Your task to perform on an android device: Go to notification settings Image 0: 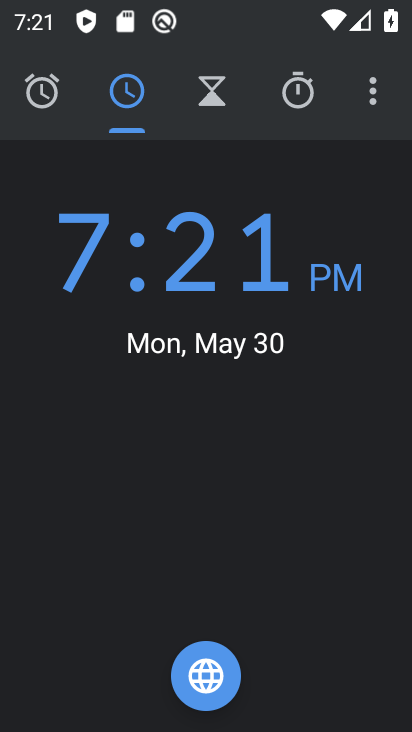
Step 0: press home button
Your task to perform on an android device: Go to notification settings Image 1: 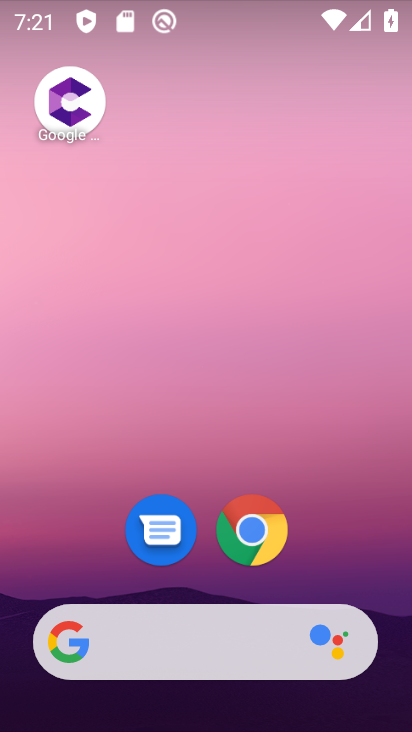
Step 1: drag from (4, 624) to (213, 131)
Your task to perform on an android device: Go to notification settings Image 2: 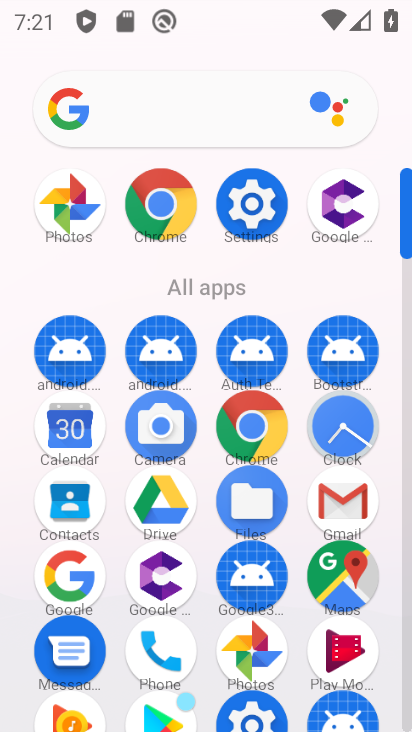
Step 2: click (264, 204)
Your task to perform on an android device: Go to notification settings Image 3: 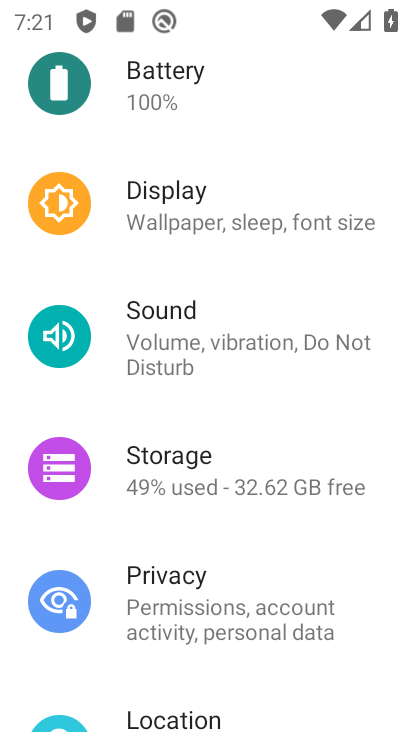
Step 3: drag from (146, 156) to (67, 627)
Your task to perform on an android device: Go to notification settings Image 4: 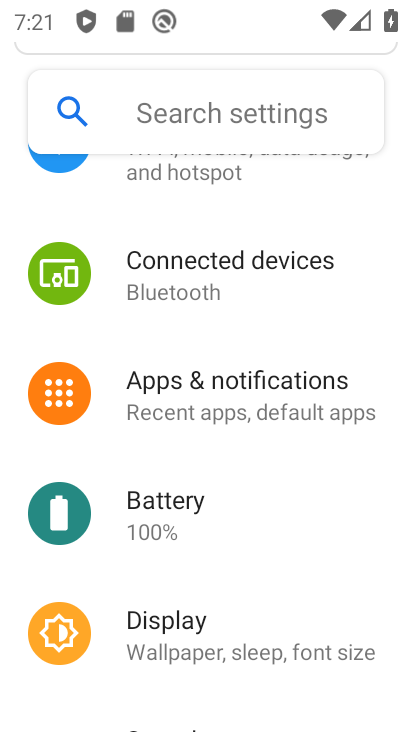
Step 4: click (151, 414)
Your task to perform on an android device: Go to notification settings Image 5: 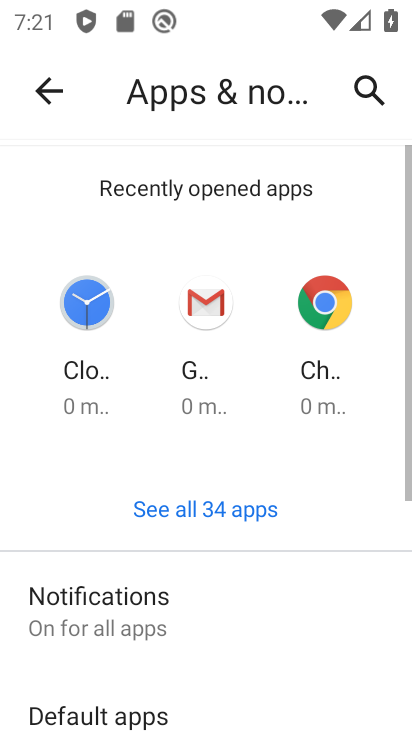
Step 5: click (97, 616)
Your task to perform on an android device: Go to notification settings Image 6: 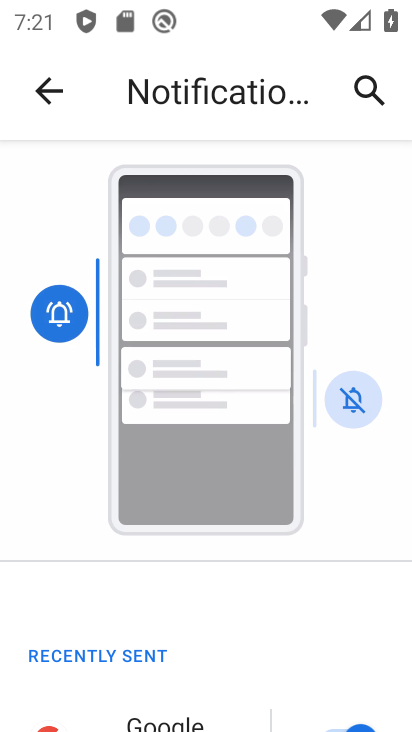
Step 6: task complete